Your task to perform on an android device: open the mobile data screen to see how much data has been used Image 0: 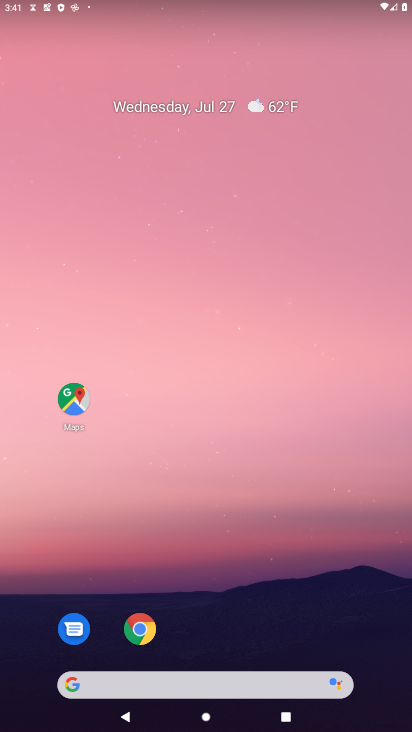
Step 0: drag from (204, 678) to (306, 49)
Your task to perform on an android device: open the mobile data screen to see how much data has been used Image 1: 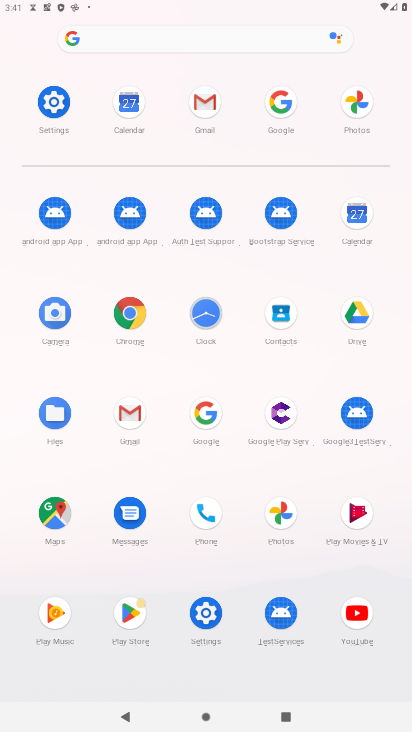
Step 1: click (53, 102)
Your task to perform on an android device: open the mobile data screen to see how much data has been used Image 2: 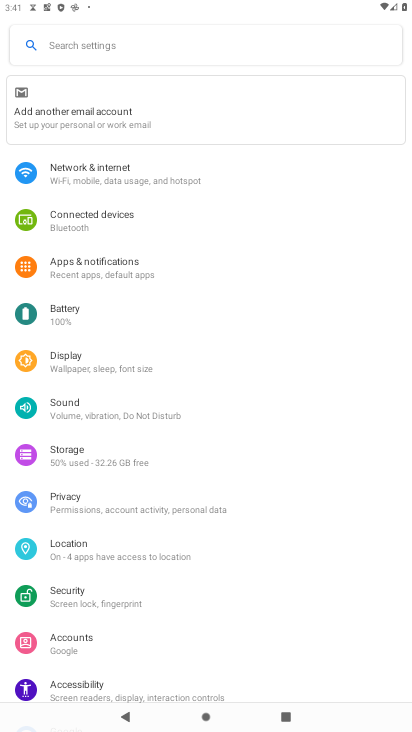
Step 2: click (82, 176)
Your task to perform on an android device: open the mobile data screen to see how much data has been used Image 3: 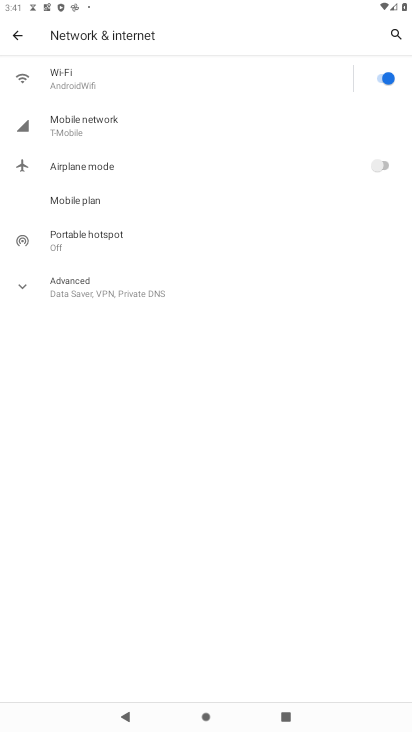
Step 3: click (71, 127)
Your task to perform on an android device: open the mobile data screen to see how much data has been used Image 4: 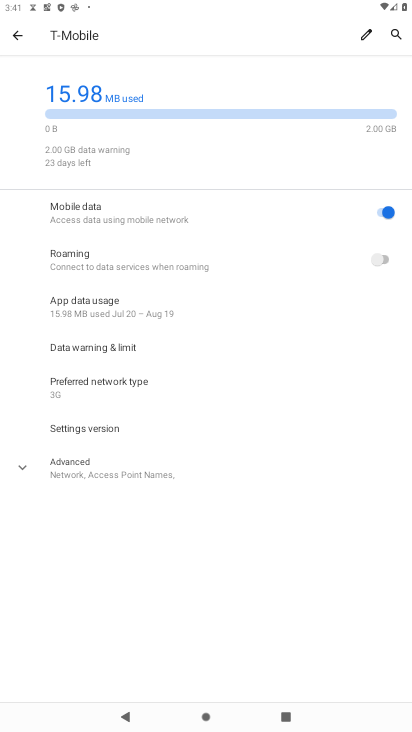
Step 4: task complete